Your task to perform on an android device: Show me popular games on the Play Store Image 0: 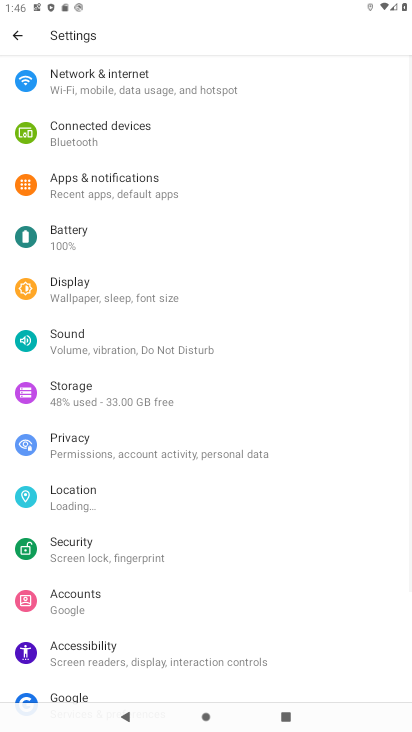
Step 0: press home button
Your task to perform on an android device: Show me popular games on the Play Store Image 1: 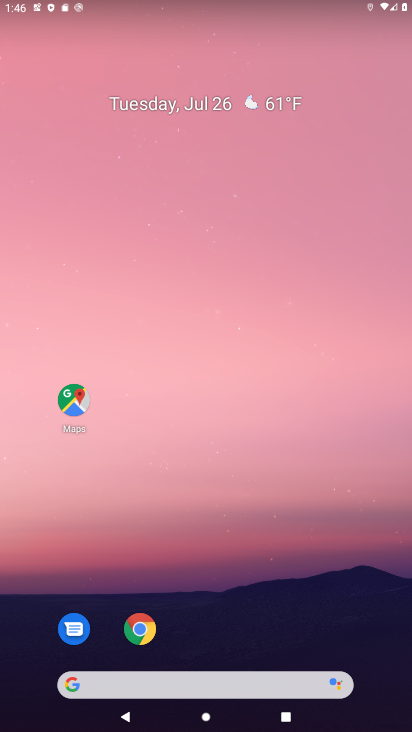
Step 1: drag from (193, 511) to (180, 66)
Your task to perform on an android device: Show me popular games on the Play Store Image 2: 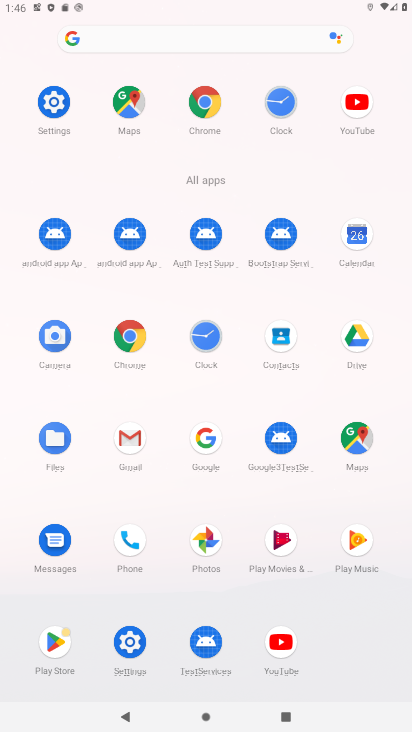
Step 2: click (54, 646)
Your task to perform on an android device: Show me popular games on the Play Store Image 3: 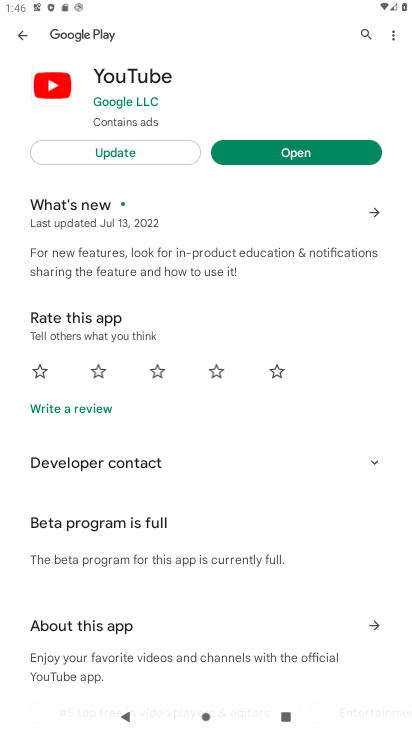
Step 3: click (26, 29)
Your task to perform on an android device: Show me popular games on the Play Store Image 4: 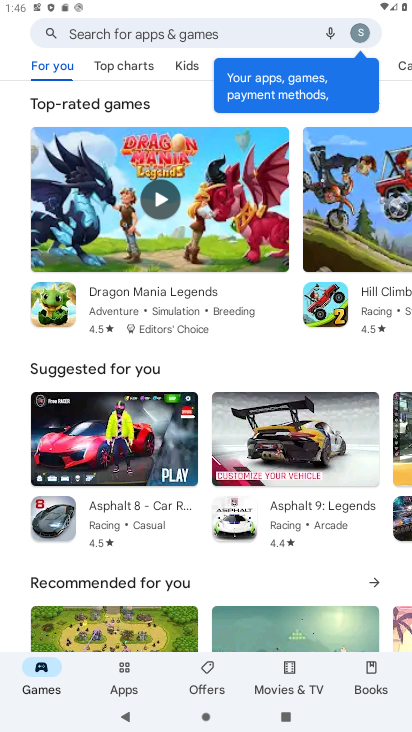
Step 4: click (145, 51)
Your task to perform on an android device: Show me popular games on the Play Store Image 5: 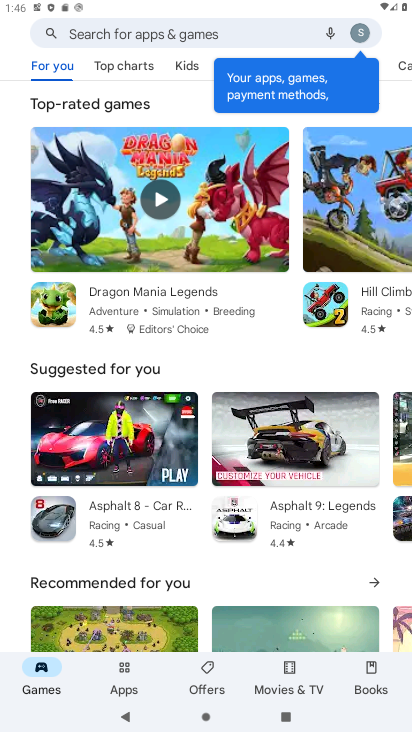
Step 5: click (122, 59)
Your task to perform on an android device: Show me popular games on the Play Store Image 6: 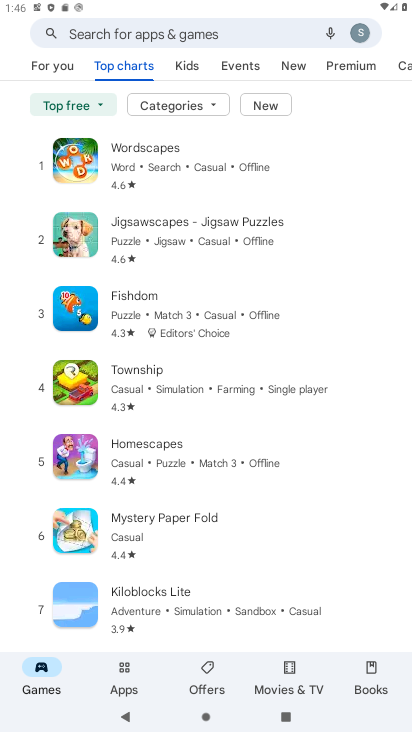
Step 6: task complete